Your task to perform on an android device: change text size in settings app Image 0: 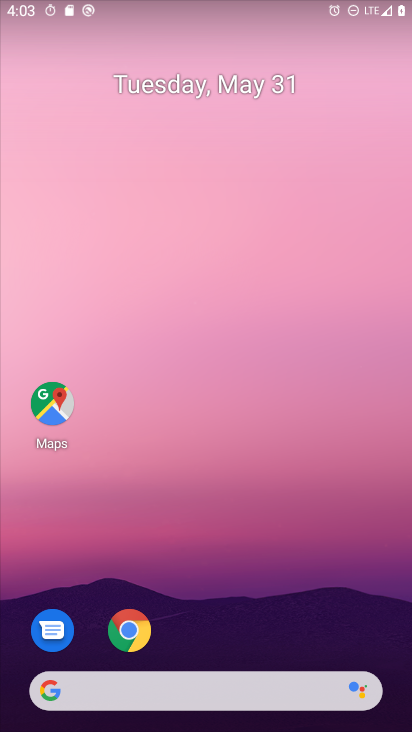
Step 0: drag from (208, 716) to (192, 84)
Your task to perform on an android device: change text size in settings app Image 1: 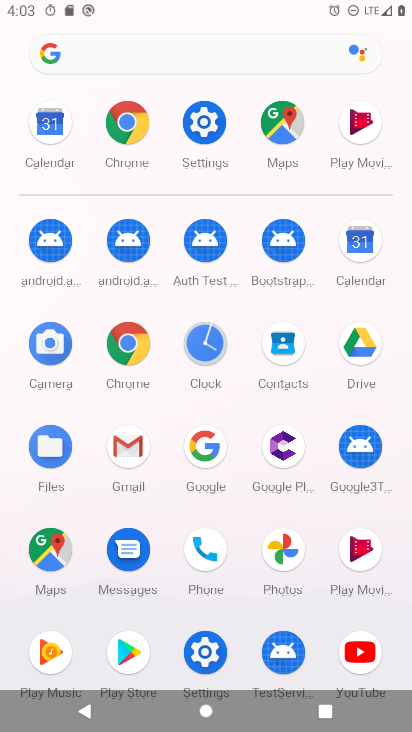
Step 1: click (202, 120)
Your task to perform on an android device: change text size in settings app Image 2: 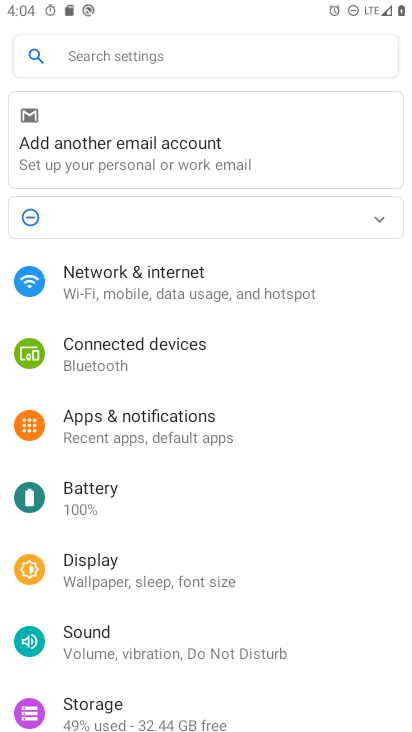
Step 2: drag from (203, 723) to (194, 54)
Your task to perform on an android device: change text size in settings app Image 3: 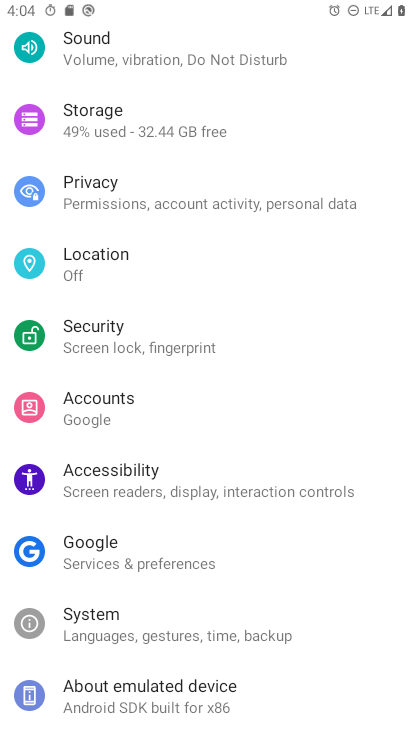
Step 3: click (133, 482)
Your task to perform on an android device: change text size in settings app Image 4: 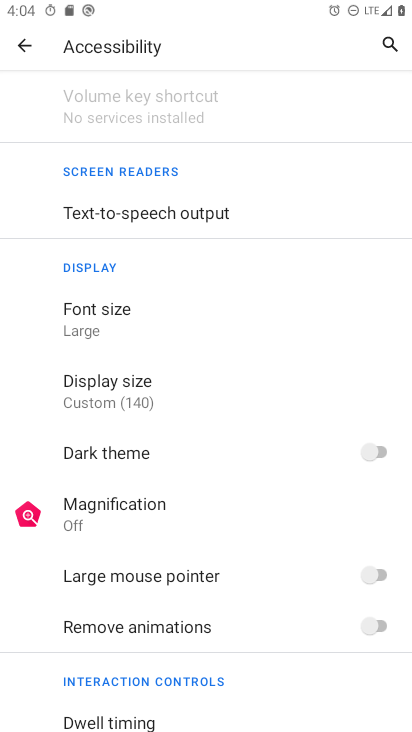
Step 4: click (101, 316)
Your task to perform on an android device: change text size in settings app Image 5: 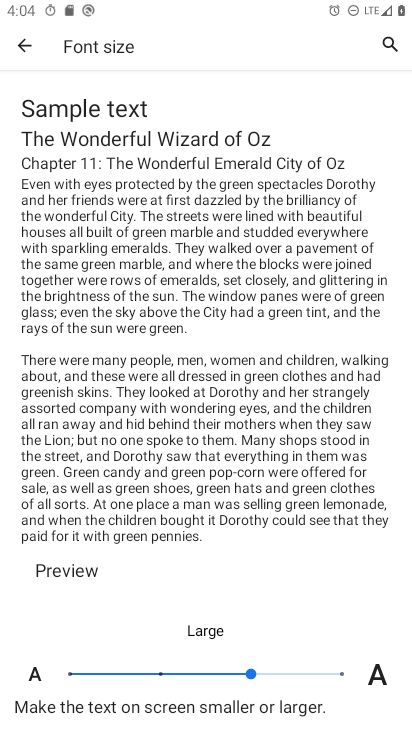
Step 5: click (161, 672)
Your task to perform on an android device: change text size in settings app Image 6: 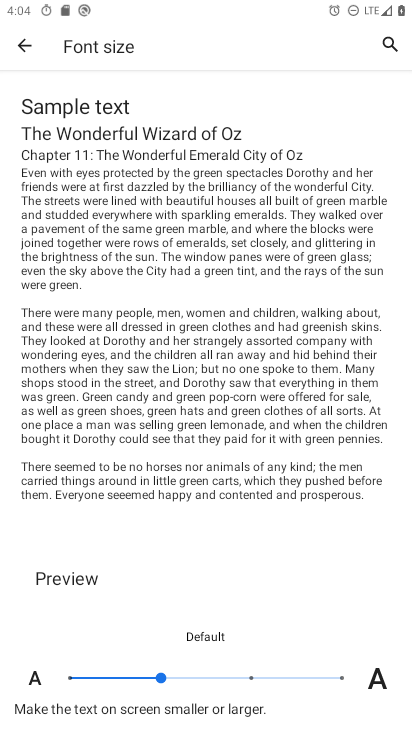
Step 6: task complete